Your task to perform on an android device: Search for vegetarian restaurants on Maps Image 0: 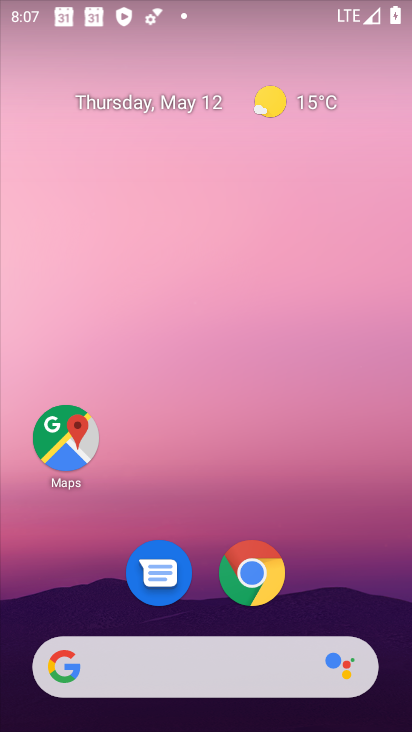
Step 0: click (52, 432)
Your task to perform on an android device: Search for vegetarian restaurants on Maps Image 1: 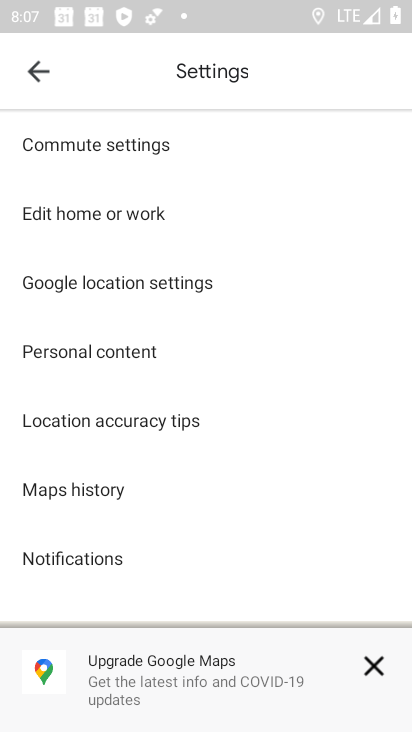
Step 1: press home button
Your task to perform on an android device: Search for vegetarian restaurants on Maps Image 2: 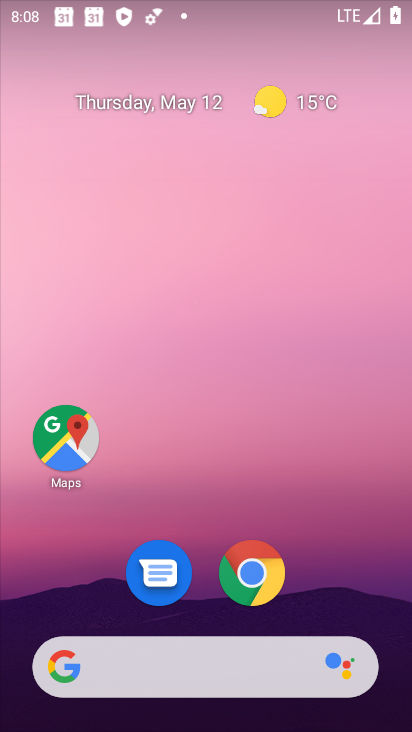
Step 2: click (53, 444)
Your task to perform on an android device: Search for vegetarian restaurants on Maps Image 3: 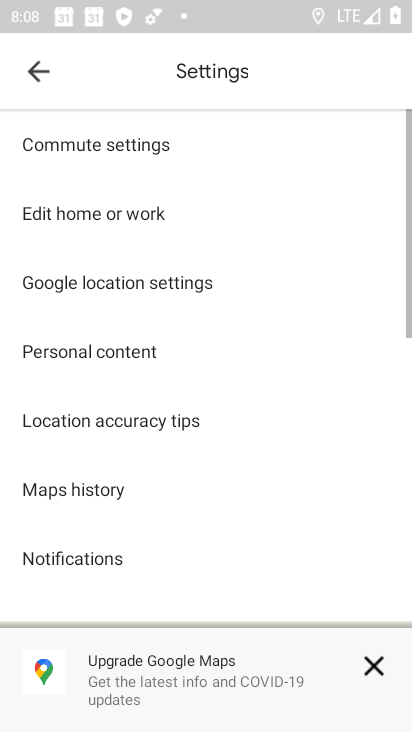
Step 3: click (35, 70)
Your task to perform on an android device: Search for vegetarian restaurants on Maps Image 4: 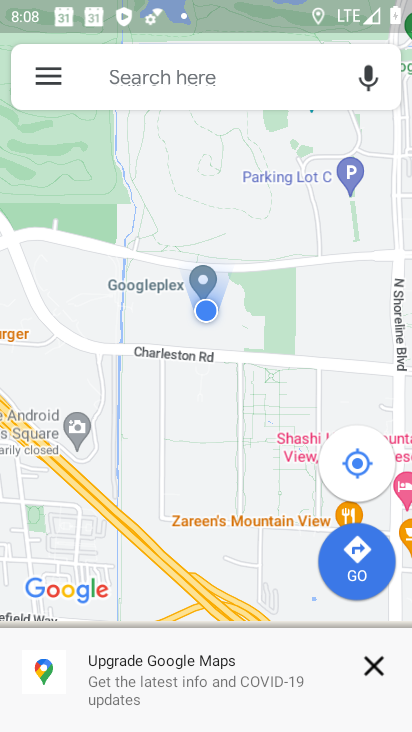
Step 4: click (103, 85)
Your task to perform on an android device: Search for vegetarian restaurants on Maps Image 5: 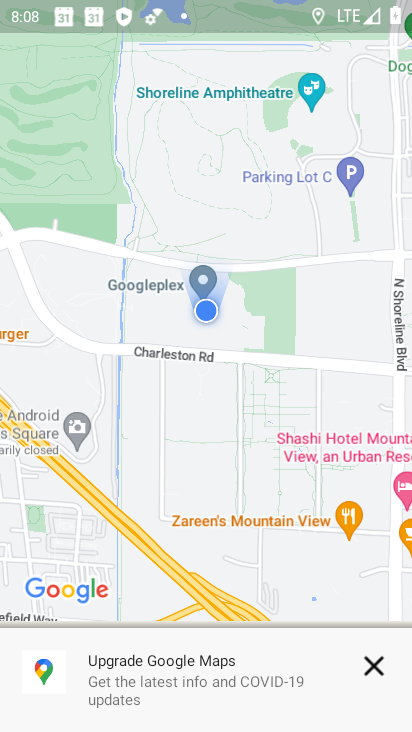
Step 5: click (198, 190)
Your task to perform on an android device: Search for vegetarian restaurants on Maps Image 6: 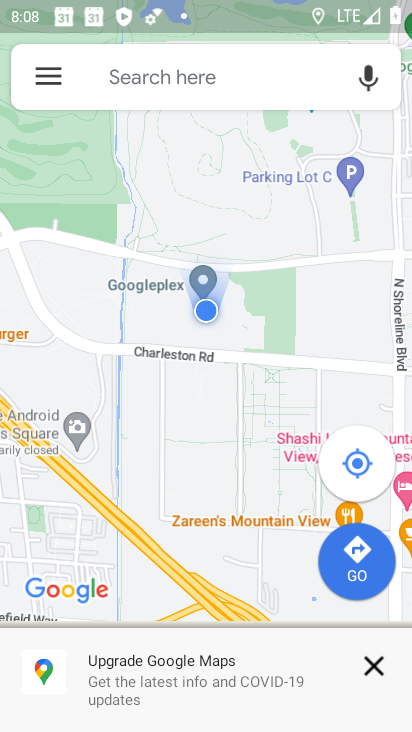
Step 6: click (163, 76)
Your task to perform on an android device: Search for vegetarian restaurants on Maps Image 7: 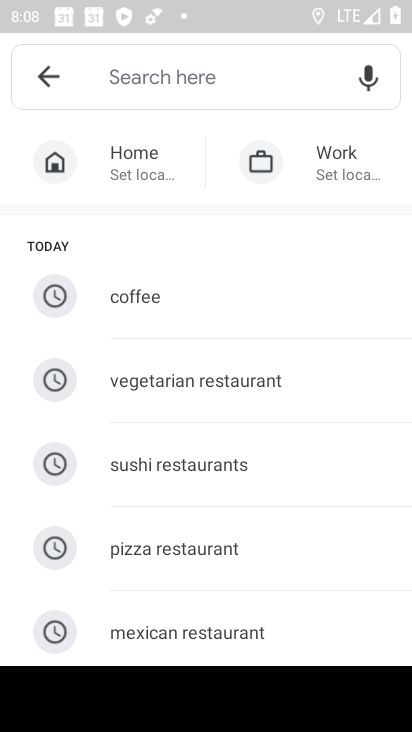
Step 7: click (168, 376)
Your task to perform on an android device: Search for vegetarian restaurants on Maps Image 8: 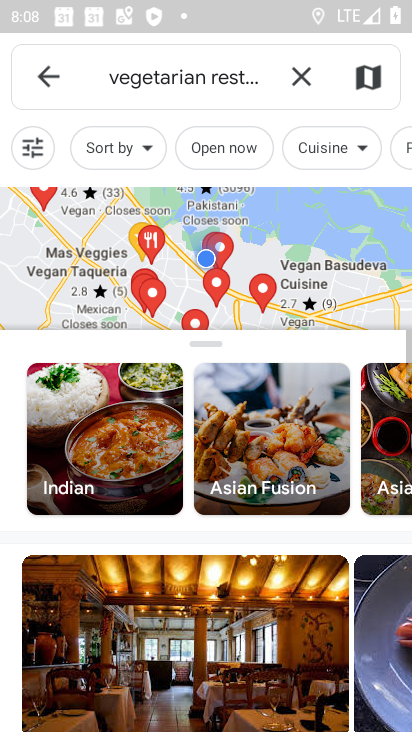
Step 8: task complete